Your task to perform on an android device: turn off wifi Image 0: 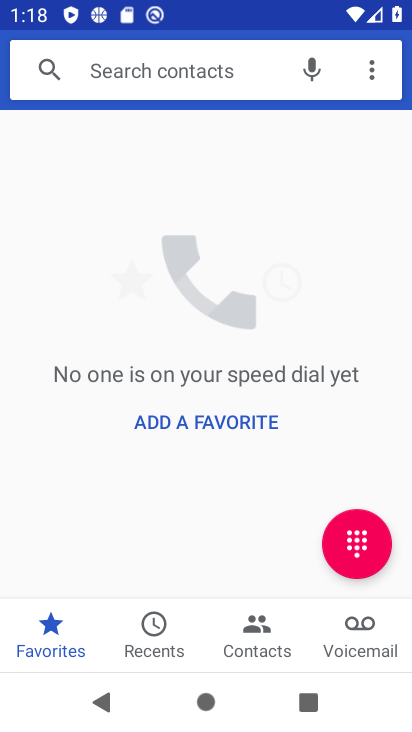
Step 0: press home button
Your task to perform on an android device: turn off wifi Image 1: 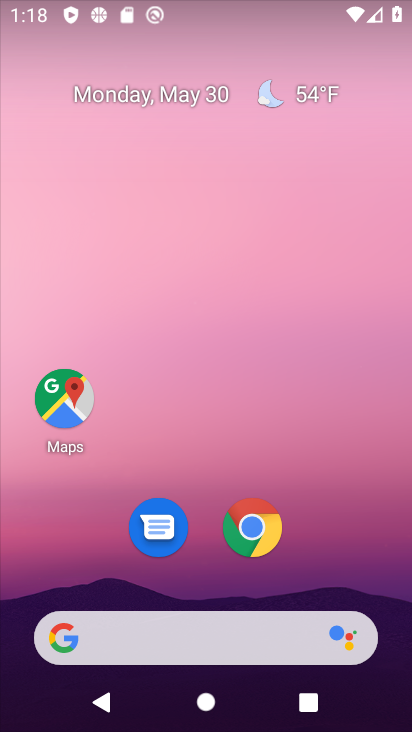
Step 1: drag from (91, 611) to (175, 98)
Your task to perform on an android device: turn off wifi Image 2: 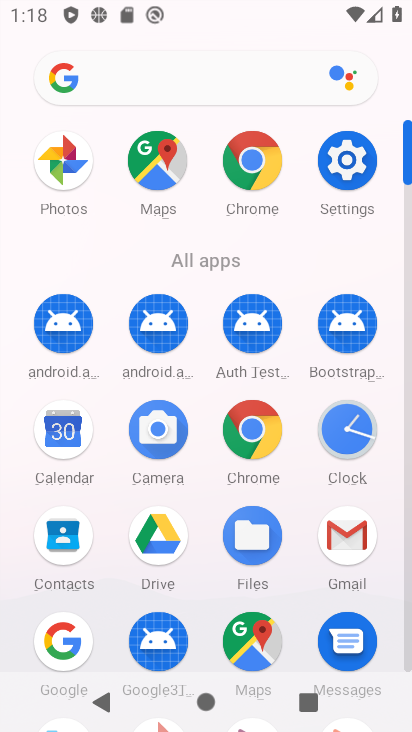
Step 2: drag from (154, 517) to (249, 210)
Your task to perform on an android device: turn off wifi Image 3: 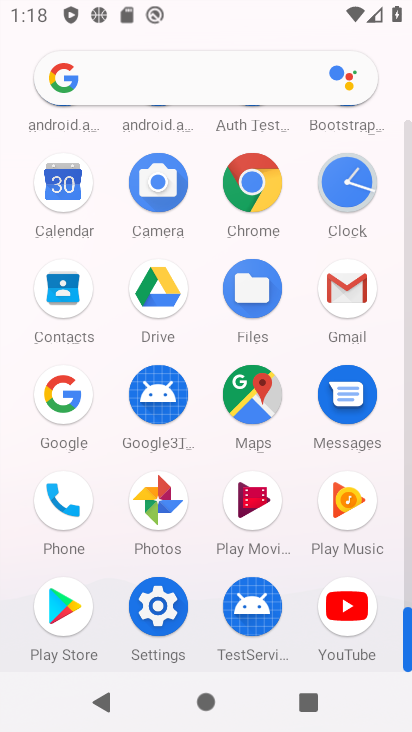
Step 3: click (160, 607)
Your task to perform on an android device: turn off wifi Image 4: 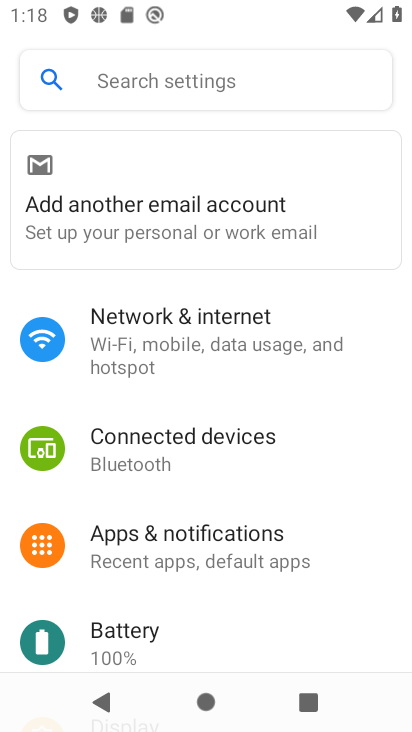
Step 4: click (262, 347)
Your task to perform on an android device: turn off wifi Image 5: 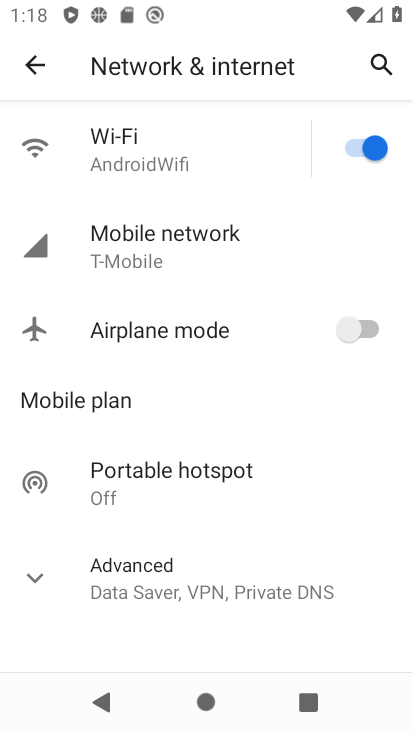
Step 5: click (372, 144)
Your task to perform on an android device: turn off wifi Image 6: 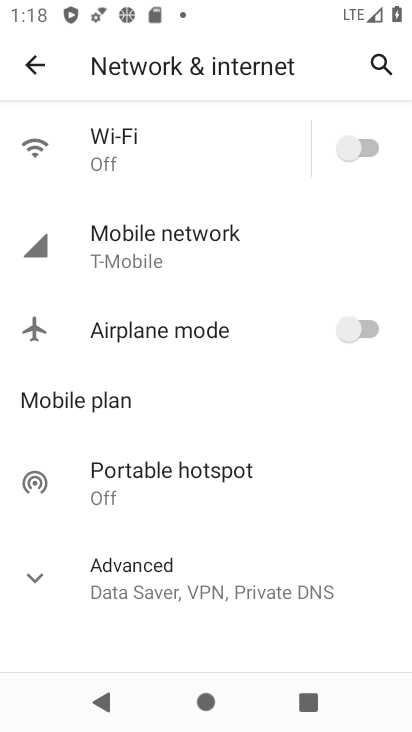
Step 6: task complete